Your task to perform on an android device: empty trash in google photos Image 0: 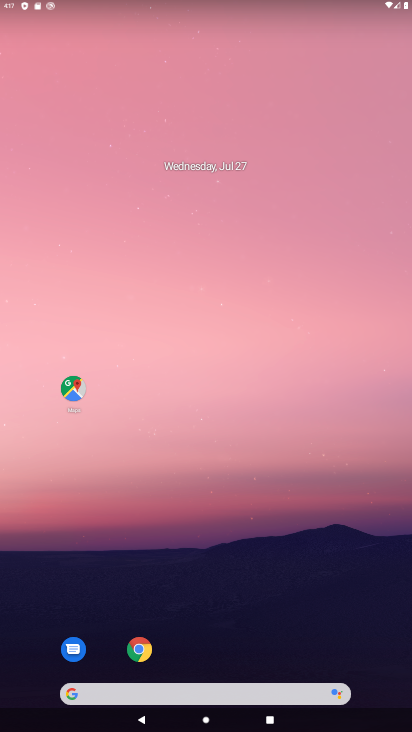
Step 0: drag from (171, 569) to (172, 197)
Your task to perform on an android device: empty trash in google photos Image 1: 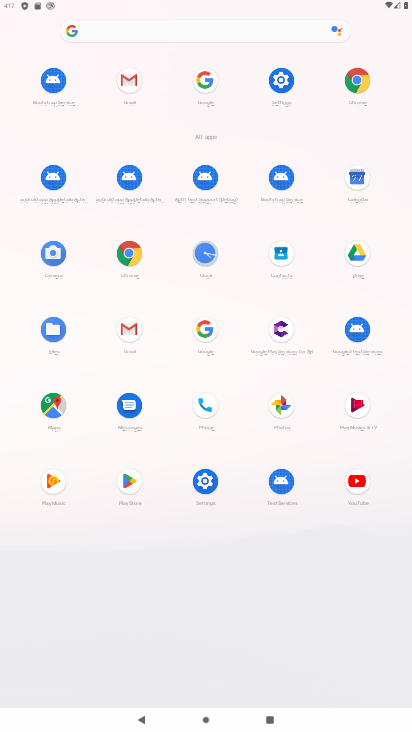
Step 1: click (279, 407)
Your task to perform on an android device: empty trash in google photos Image 2: 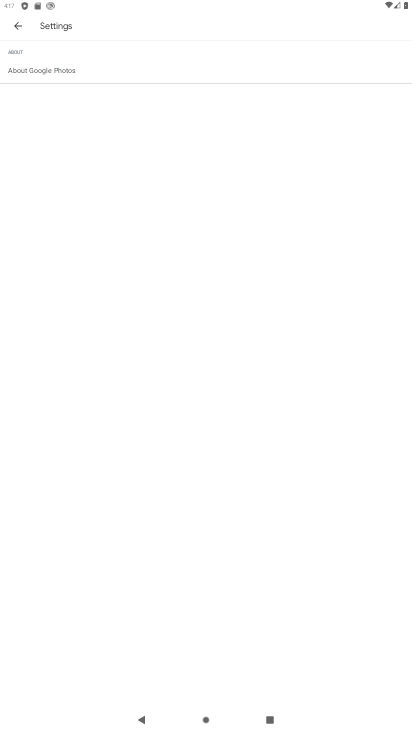
Step 2: click (13, 29)
Your task to perform on an android device: empty trash in google photos Image 3: 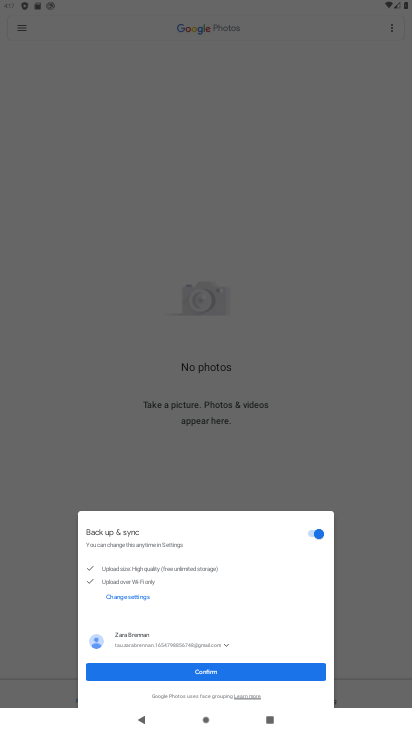
Step 3: click (207, 673)
Your task to perform on an android device: empty trash in google photos Image 4: 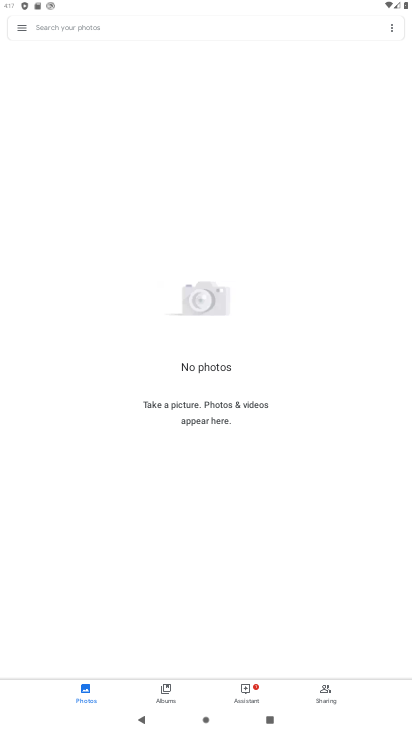
Step 4: click (165, 694)
Your task to perform on an android device: empty trash in google photos Image 5: 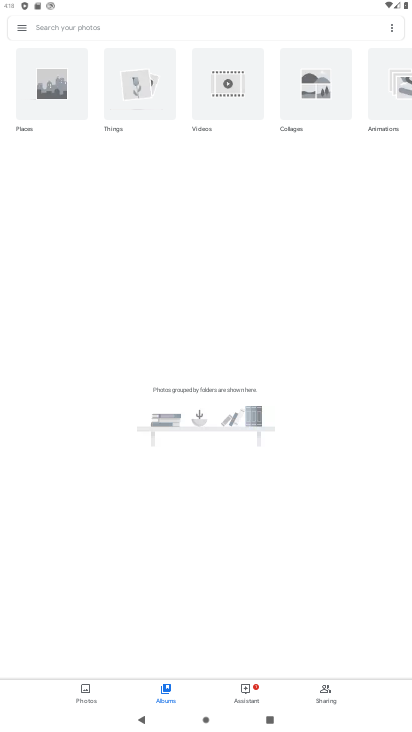
Step 5: click (19, 26)
Your task to perform on an android device: empty trash in google photos Image 6: 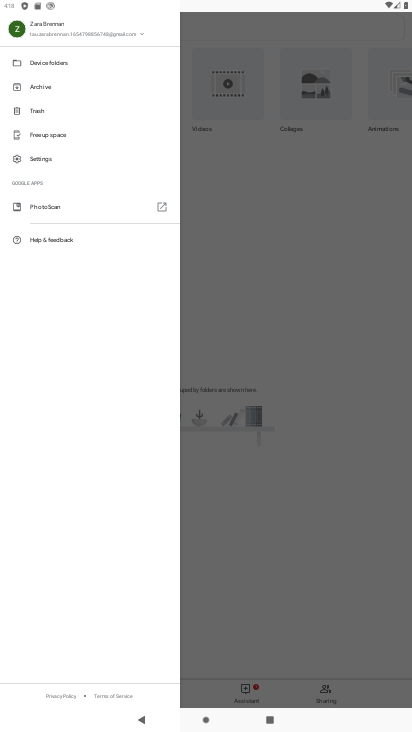
Step 6: click (31, 110)
Your task to perform on an android device: empty trash in google photos Image 7: 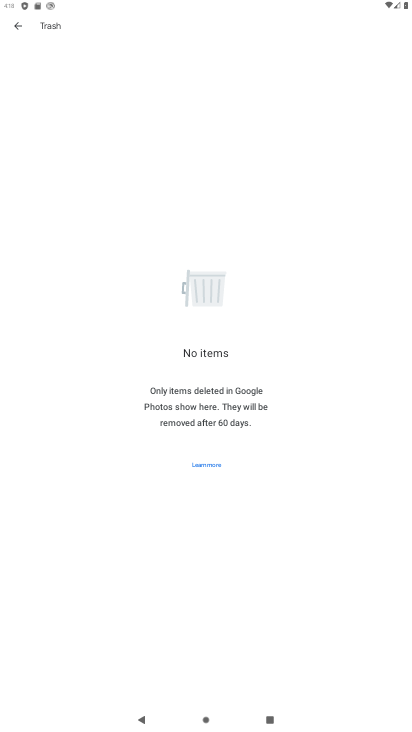
Step 7: task complete